Your task to perform on an android device: Open eBay Image 0: 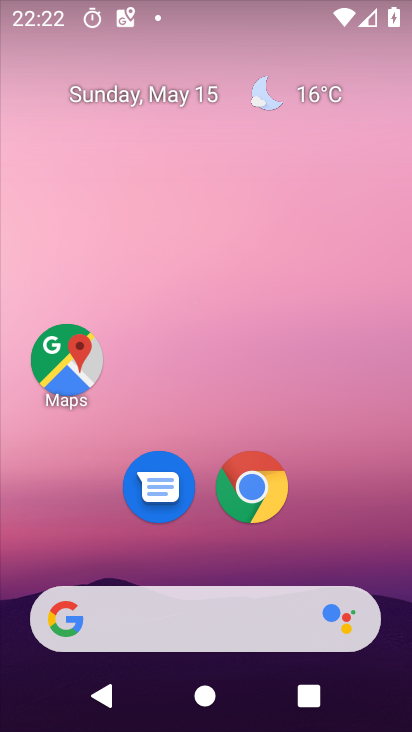
Step 0: click (245, 481)
Your task to perform on an android device: Open eBay Image 1: 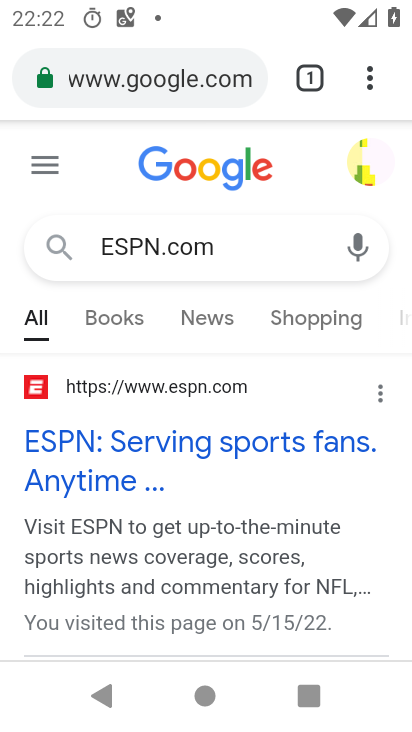
Step 1: click (250, 250)
Your task to perform on an android device: Open eBay Image 2: 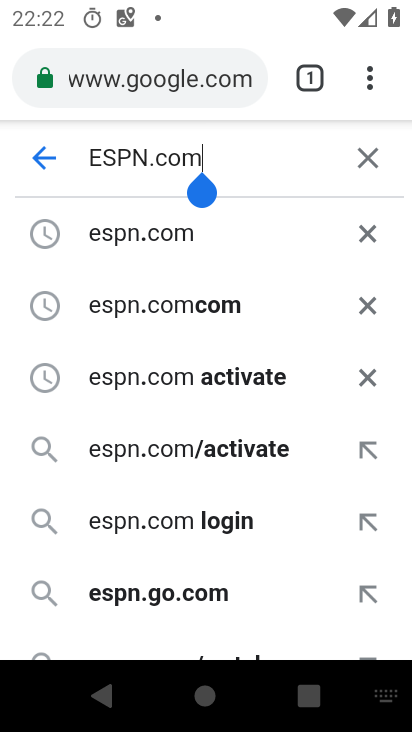
Step 2: click (253, 75)
Your task to perform on an android device: Open eBay Image 3: 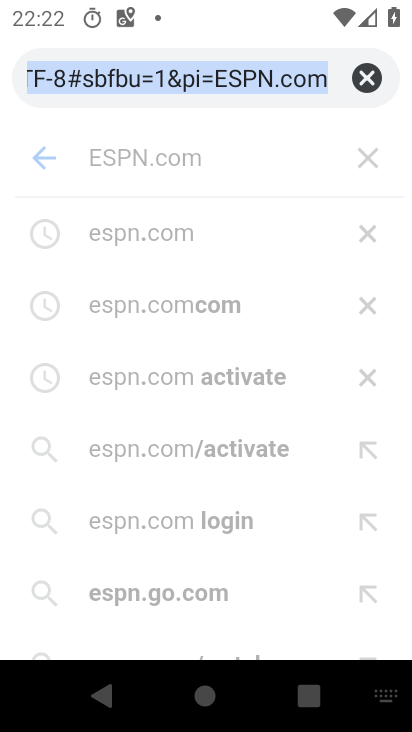
Step 3: click (369, 71)
Your task to perform on an android device: Open eBay Image 4: 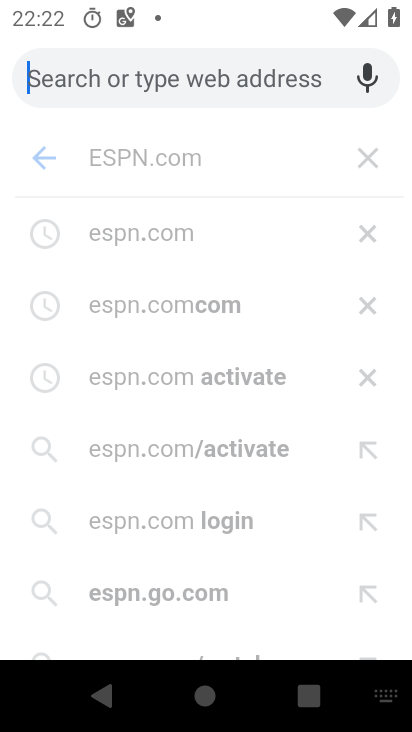
Step 4: type "eBay"
Your task to perform on an android device: Open eBay Image 5: 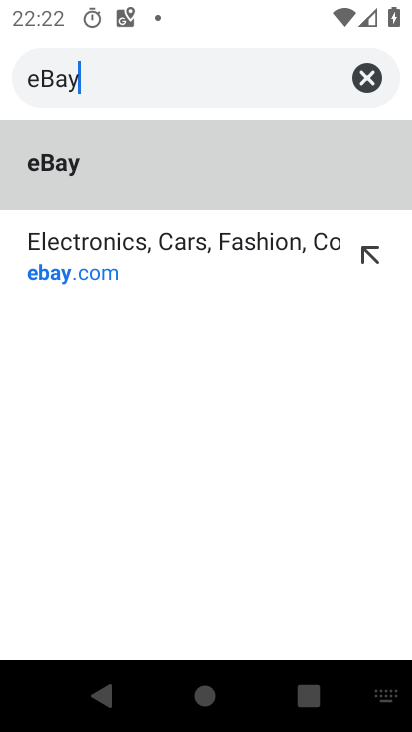
Step 5: click (40, 156)
Your task to perform on an android device: Open eBay Image 6: 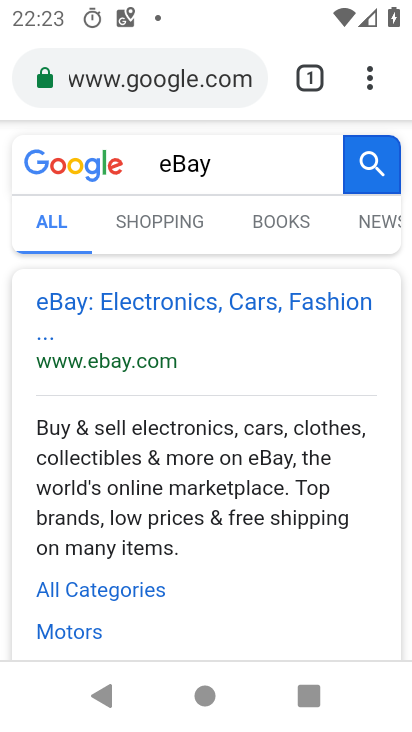
Step 6: press home button
Your task to perform on an android device: Open eBay Image 7: 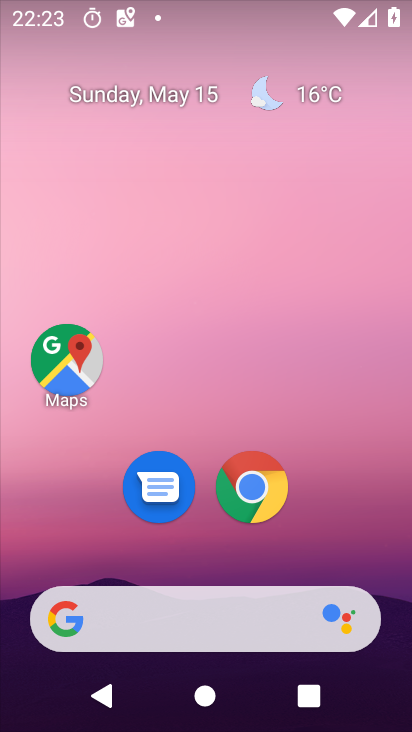
Step 7: click (256, 483)
Your task to perform on an android device: Open eBay Image 8: 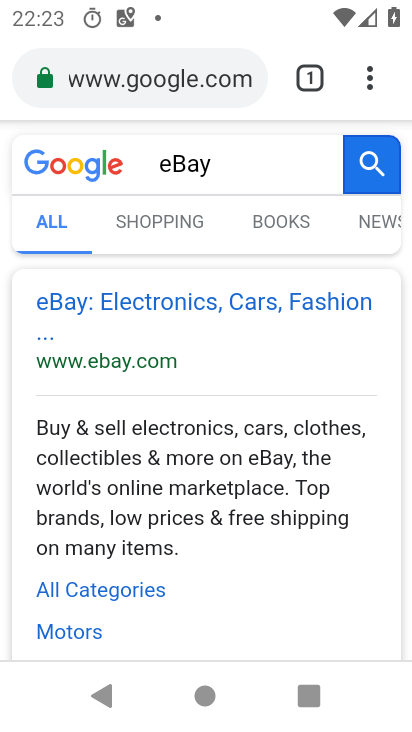
Step 8: task complete